Your task to perform on an android device: Open the Play Movies app and select the watchlist tab. Image 0: 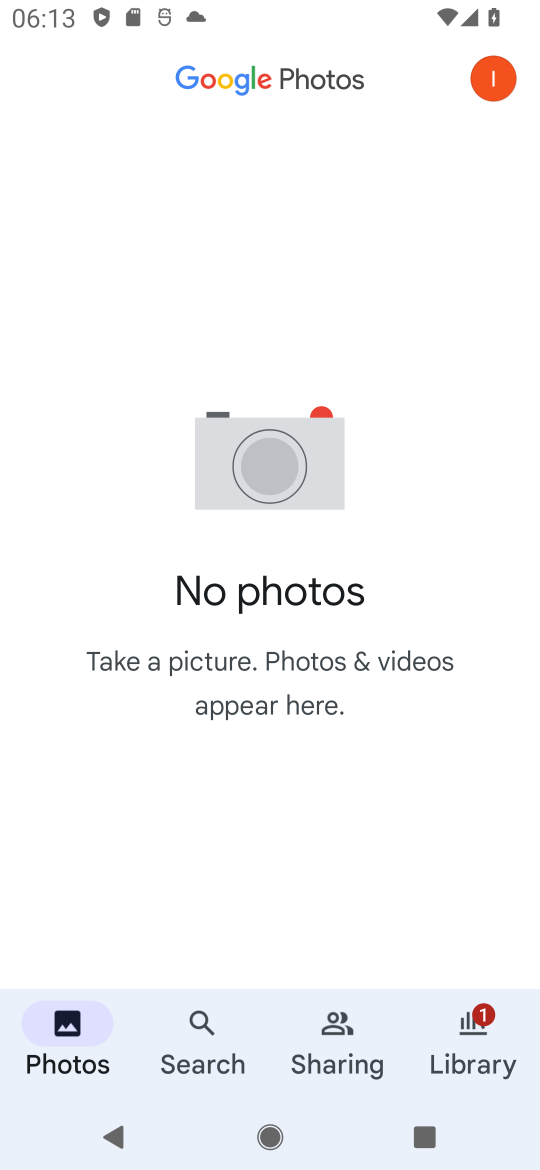
Step 0: press home button
Your task to perform on an android device: Open the Play Movies app and select the watchlist tab. Image 1: 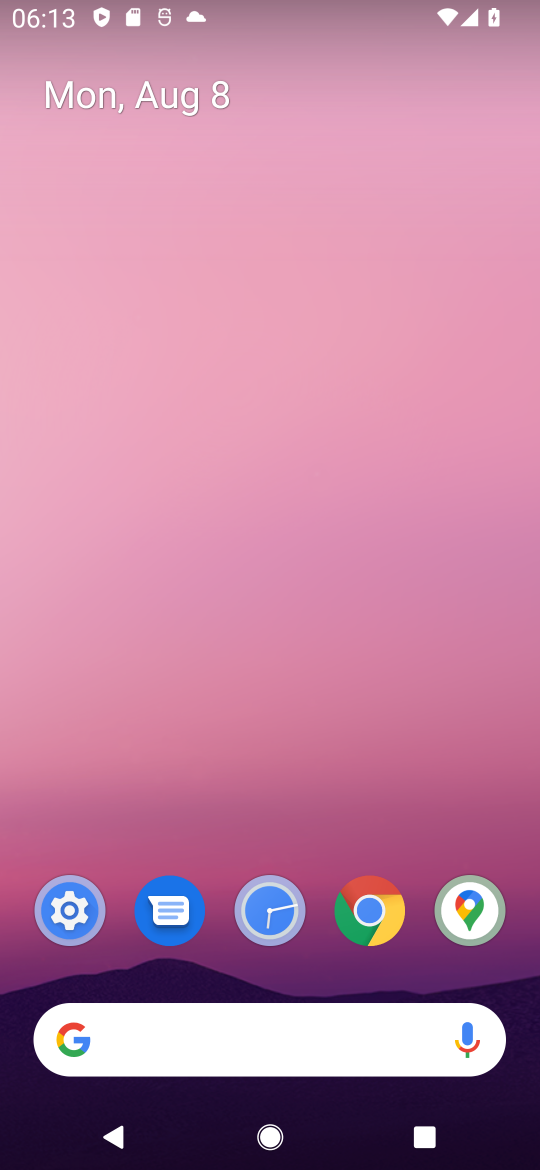
Step 1: drag from (330, 1004) to (196, 380)
Your task to perform on an android device: Open the Play Movies app and select the watchlist tab. Image 2: 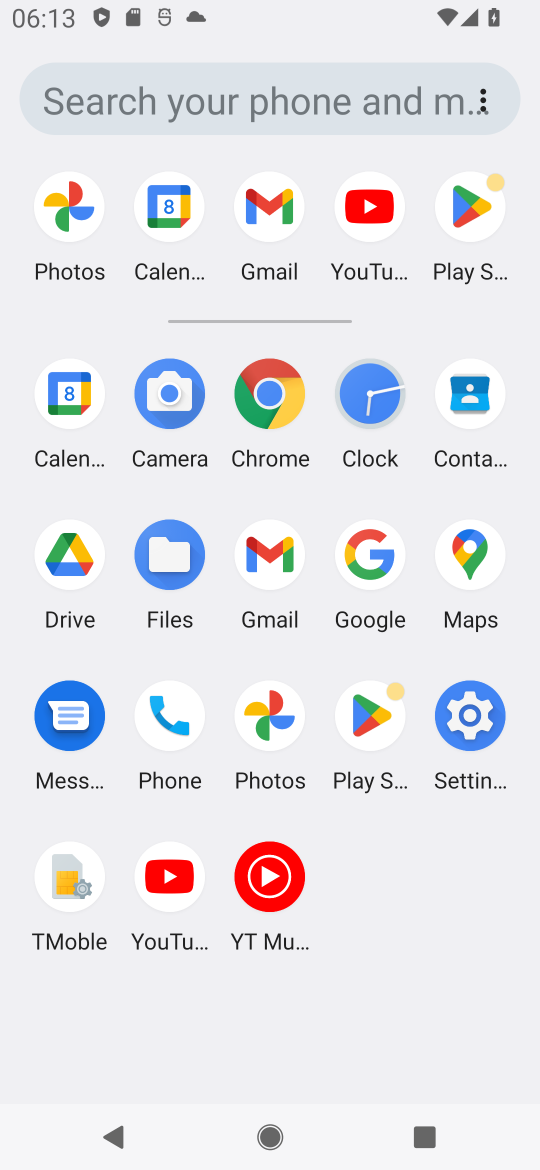
Step 2: click (277, 887)
Your task to perform on an android device: Open the Play Movies app and select the watchlist tab. Image 3: 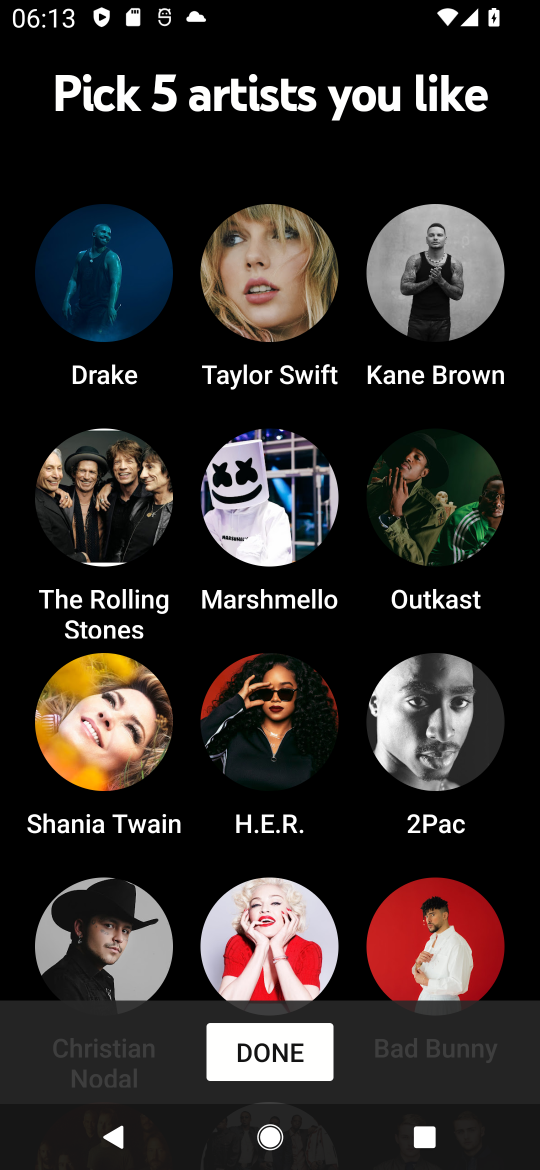
Step 3: click (296, 1062)
Your task to perform on an android device: Open the Play Movies app and select the watchlist tab. Image 4: 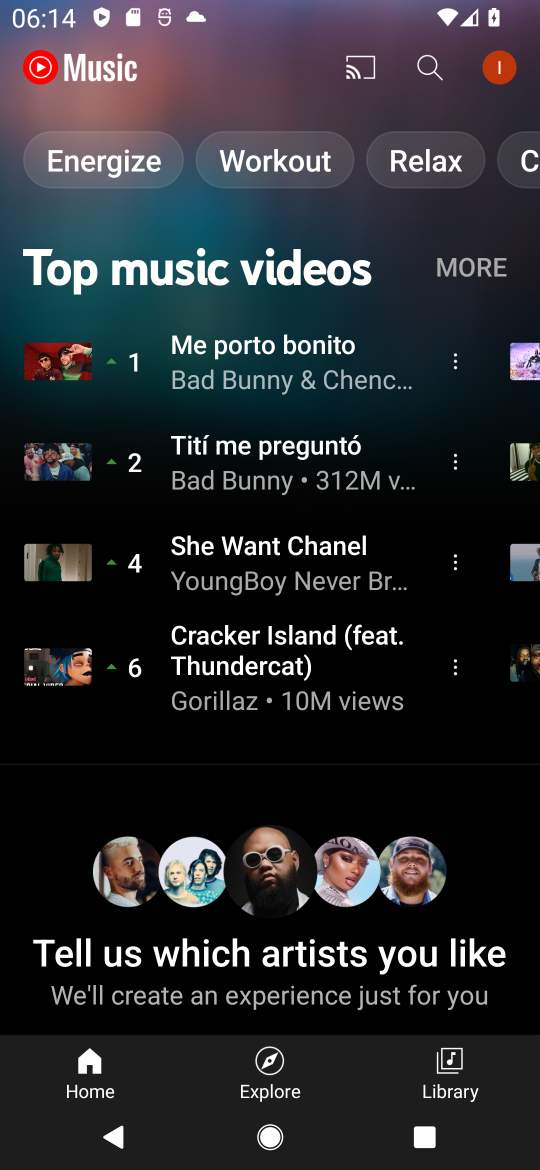
Step 4: click (235, 173)
Your task to perform on an android device: Open the Play Movies app and select the watchlist tab. Image 5: 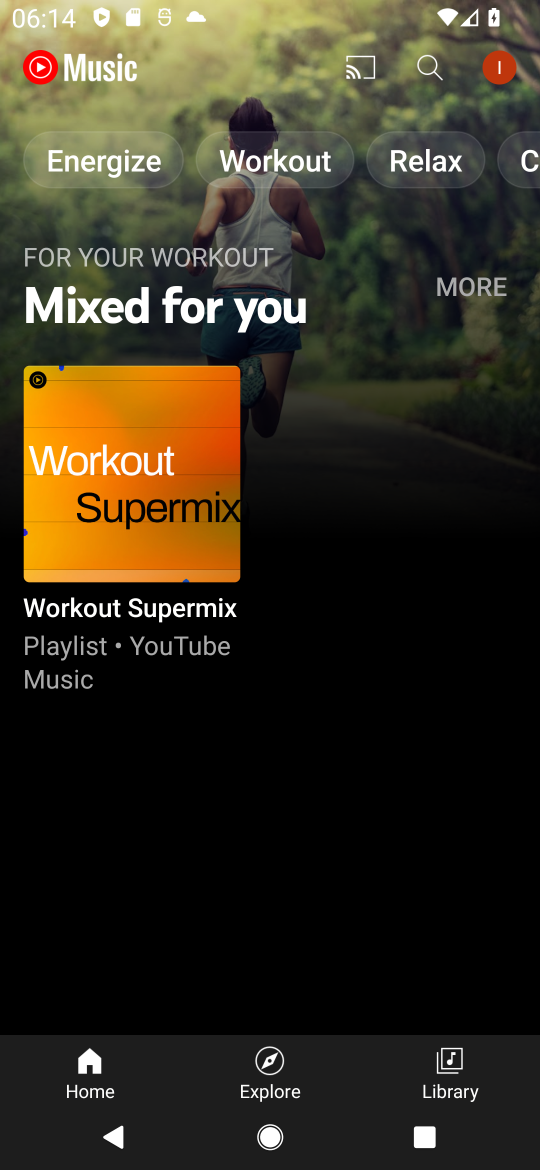
Step 5: task complete